Your task to perform on an android device: Open the calendar and show me this week's events Image 0: 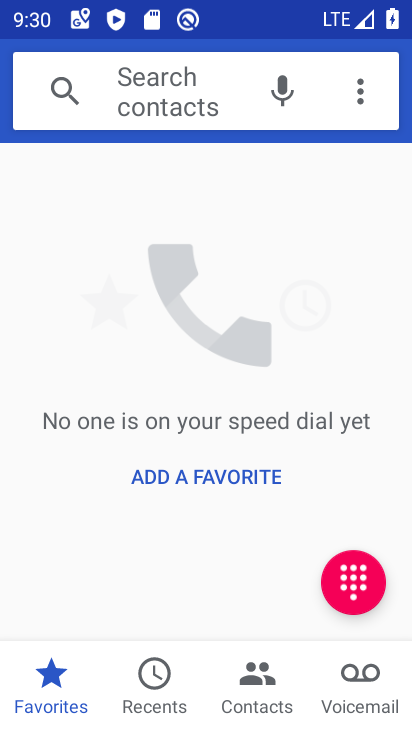
Step 0: press home button
Your task to perform on an android device: Open the calendar and show me this week's events Image 1: 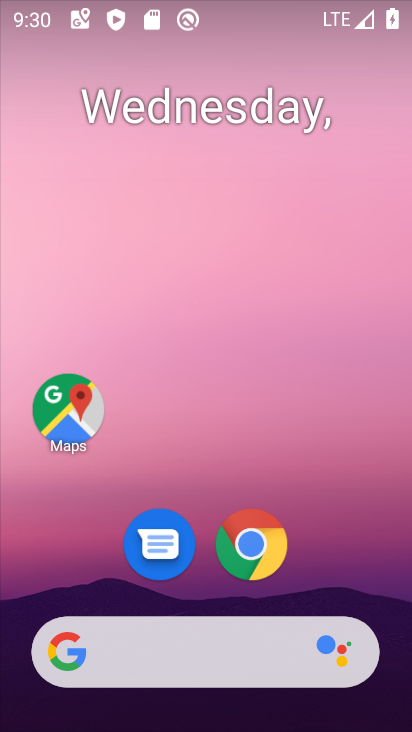
Step 1: click (172, 119)
Your task to perform on an android device: Open the calendar and show me this week's events Image 2: 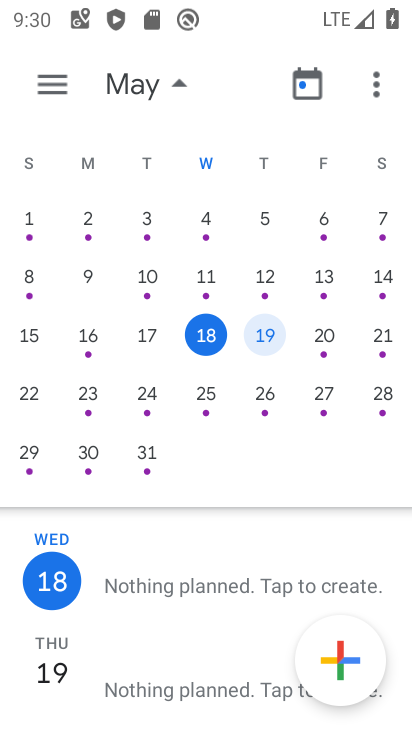
Step 2: task complete